Your task to perform on an android device: move an email to a new category in the gmail app Image 0: 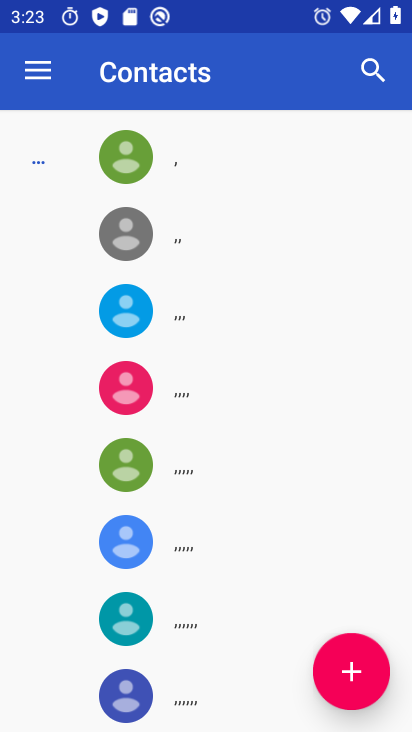
Step 0: press home button
Your task to perform on an android device: move an email to a new category in the gmail app Image 1: 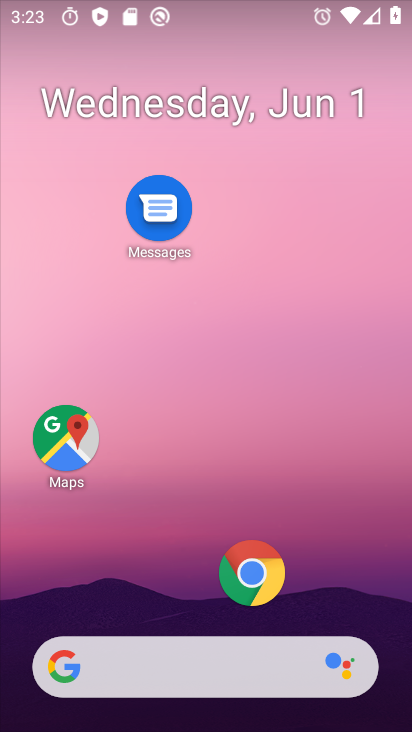
Step 1: drag from (184, 608) to (193, 202)
Your task to perform on an android device: move an email to a new category in the gmail app Image 2: 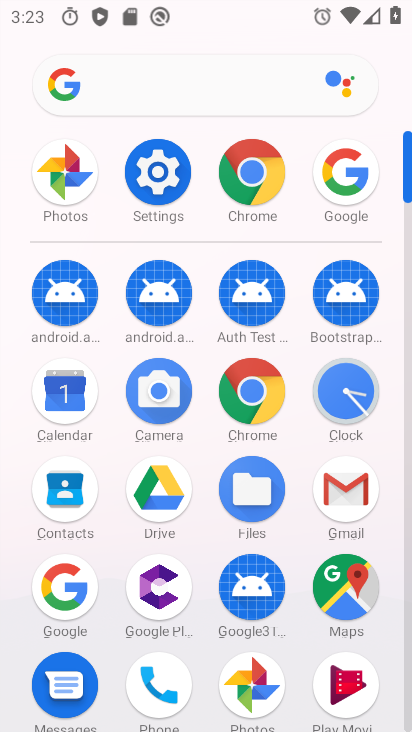
Step 2: click (333, 510)
Your task to perform on an android device: move an email to a new category in the gmail app Image 3: 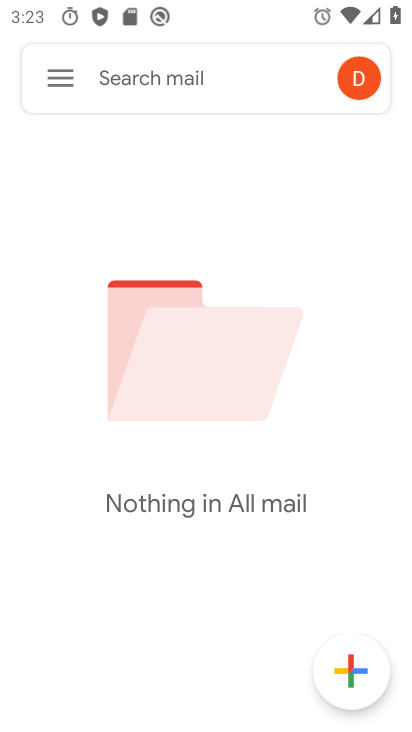
Step 3: click (54, 81)
Your task to perform on an android device: move an email to a new category in the gmail app Image 4: 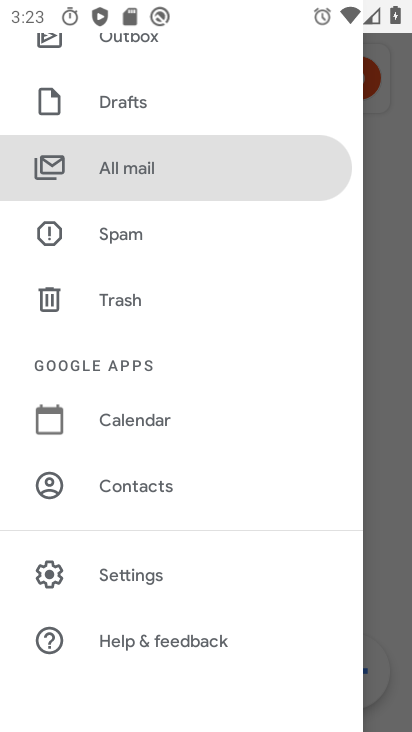
Step 4: click (170, 565)
Your task to perform on an android device: move an email to a new category in the gmail app Image 5: 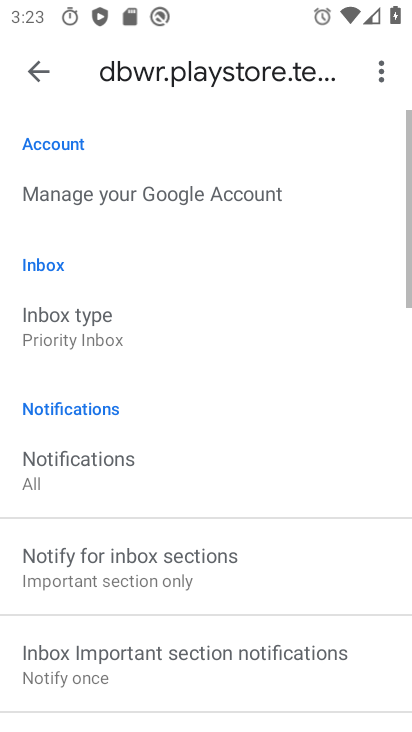
Step 5: click (47, 74)
Your task to perform on an android device: move an email to a new category in the gmail app Image 6: 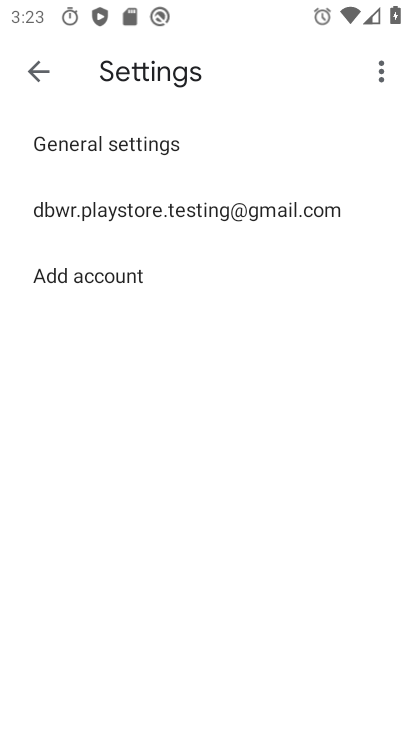
Step 6: click (47, 74)
Your task to perform on an android device: move an email to a new category in the gmail app Image 7: 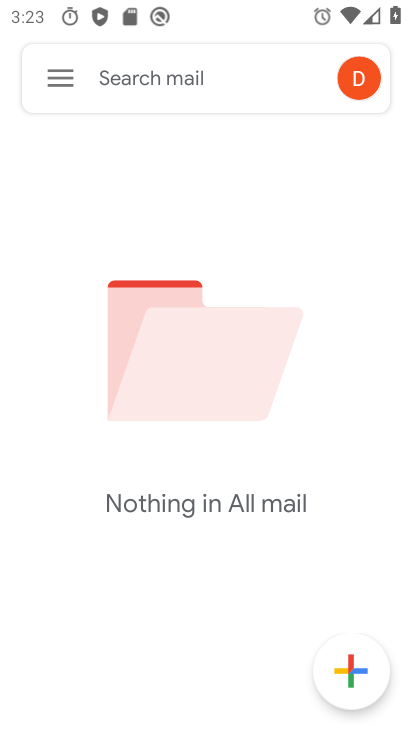
Step 7: click (39, 78)
Your task to perform on an android device: move an email to a new category in the gmail app Image 8: 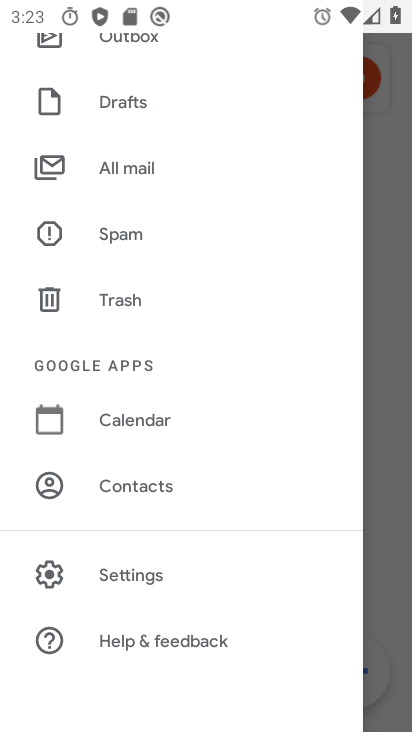
Step 8: click (125, 179)
Your task to perform on an android device: move an email to a new category in the gmail app Image 9: 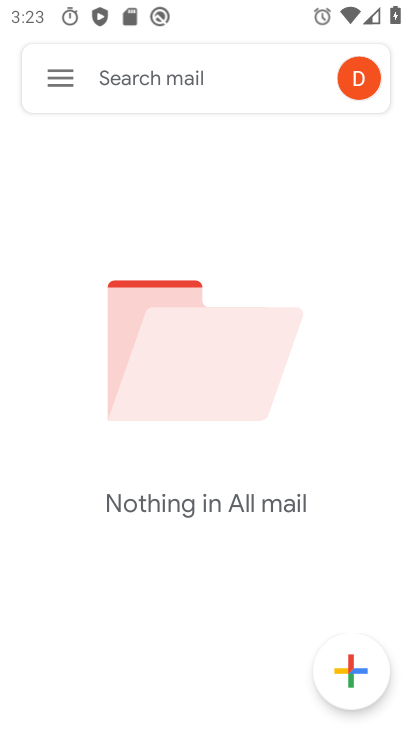
Step 9: task complete